Your task to perform on an android device: Open the stopwatch Image 0: 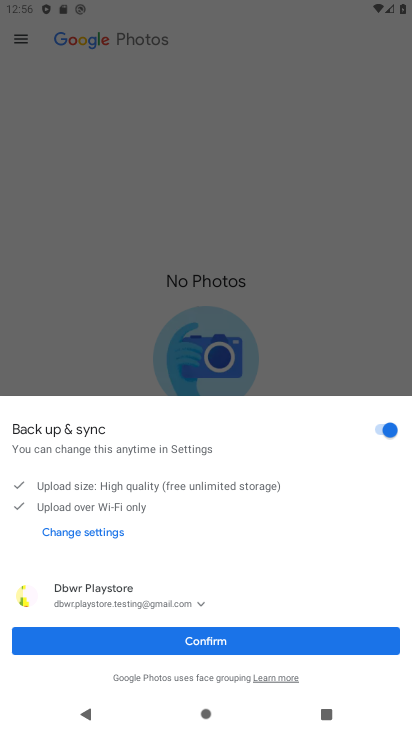
Step 0: click (319, 639)
Your task to perform on an android device: Open the stopwatch Image 1: 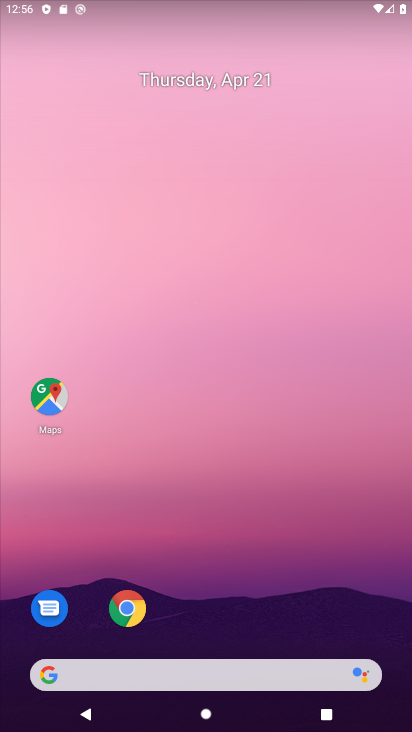
Step 1: drag from (325, 617) to (324, 152)
Your task to perform on an android device: Open the stopwatch Image 2: 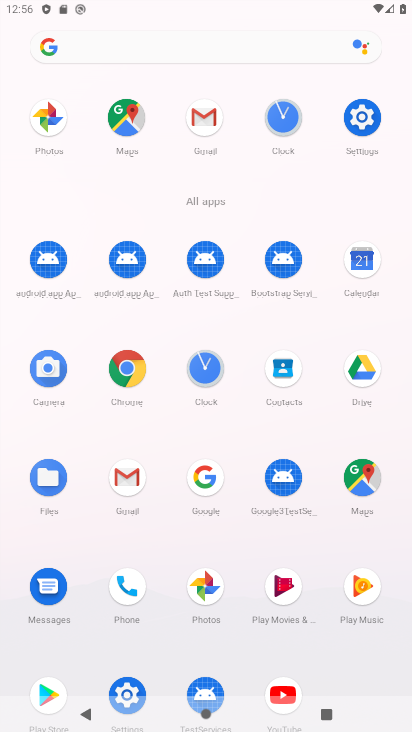
Step 2: click (208, 364)
Your task to perform on an android device: Open the stopwatch Image 3: 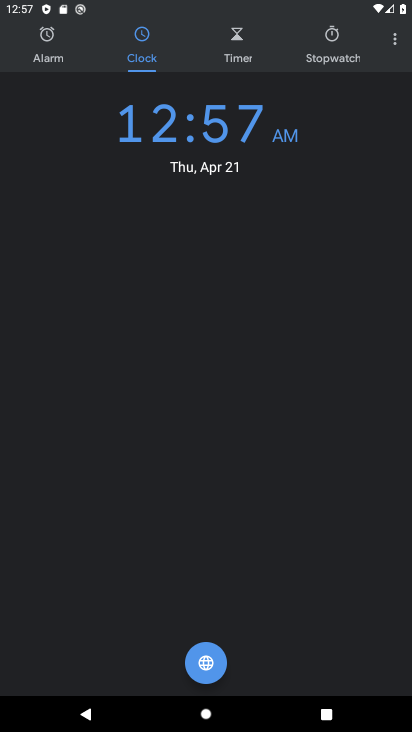
Step 3: click (333, 49)
Your task to perform on an android device: Open the stopwatch Image 4: 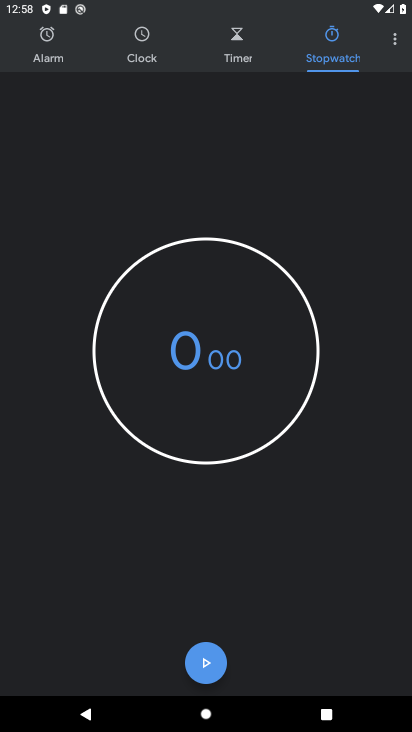
Step 4: click (202, 665)
Your task to perform on an android device: Open the stopwatch Image 5: 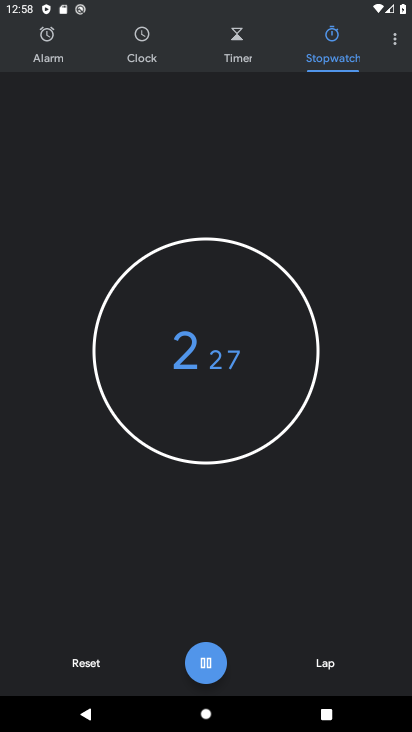
Step 5: task complete